Your task to perform on an android device: set the timer Image 0: 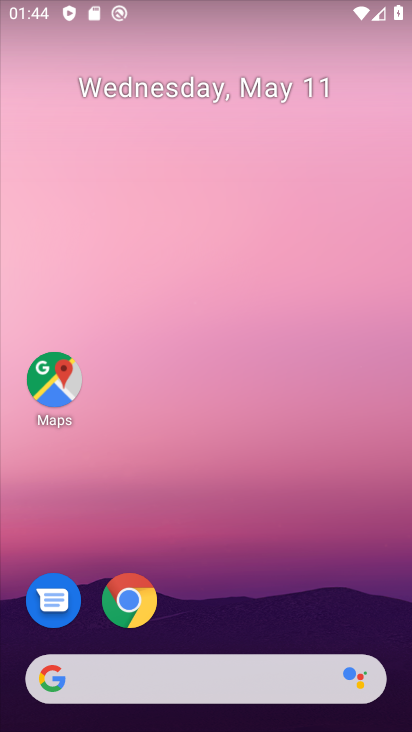
Step 0: drag from (247, 623) to (254, 304)
Your task to perform on an android device: set the timer Image 1: 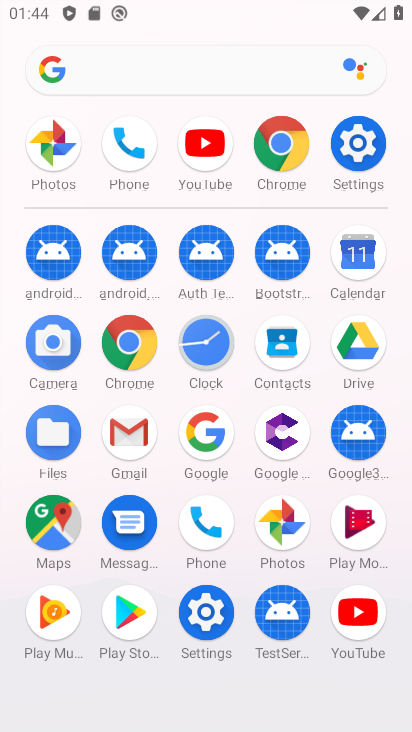
Step 1: click (211, 334)
Your task to perform on an android device: set the timer Image 2: 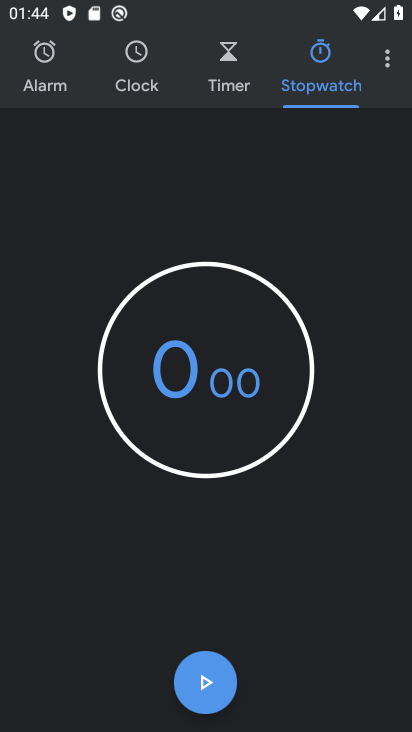
Step 2: click (231, 53)
Your task to perform on an android device: set the timer Image 3: 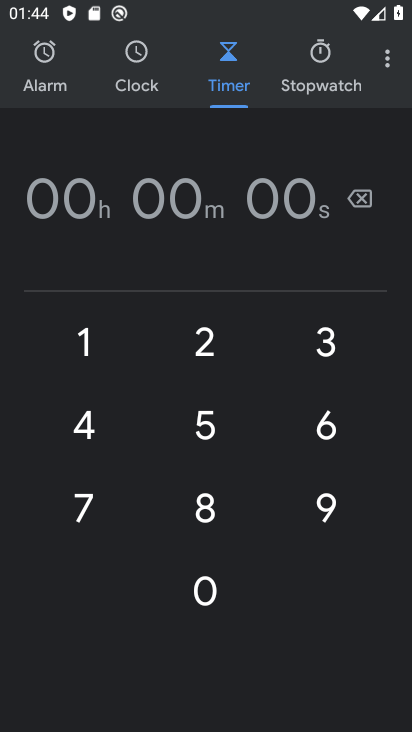
Step 3: click (52, 199)
Your task to perform on an android device: set the timer Image 4: 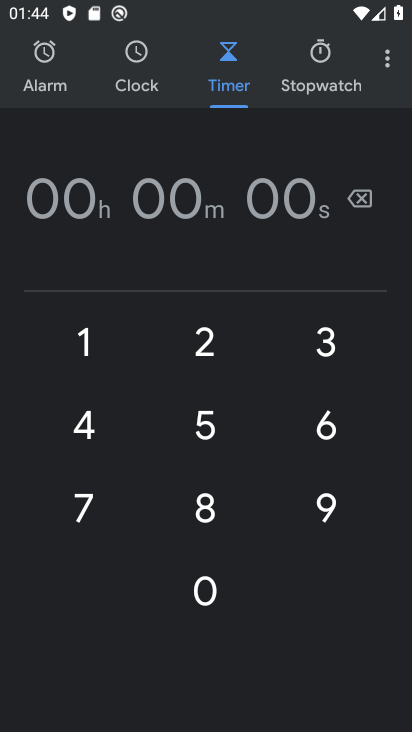
Step 4: type "90090909"
Your task to perform on an android device: set the timer Image 5: 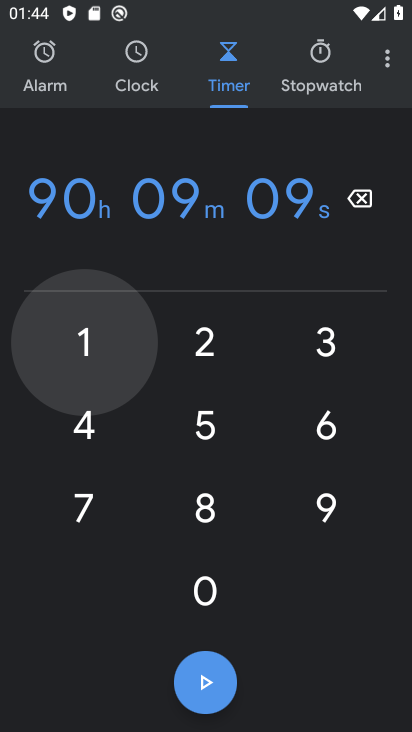
Step 5: click (215, 690)
Your task to perform on an android device: set the timer Image 6: 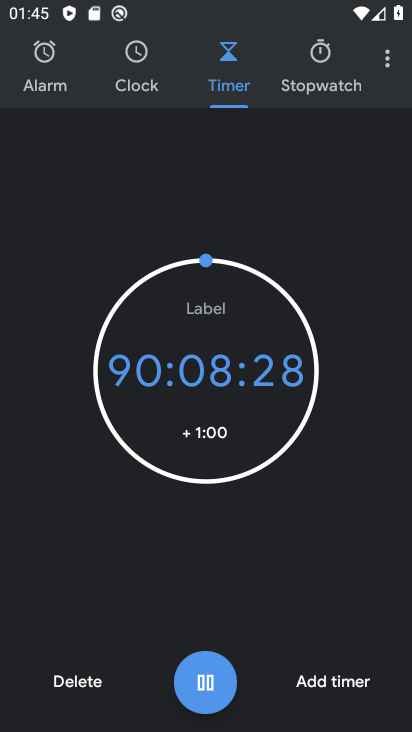
Step 6: task complete